Your task to perform on an android device: turn on translation in the chrome app Image 0: 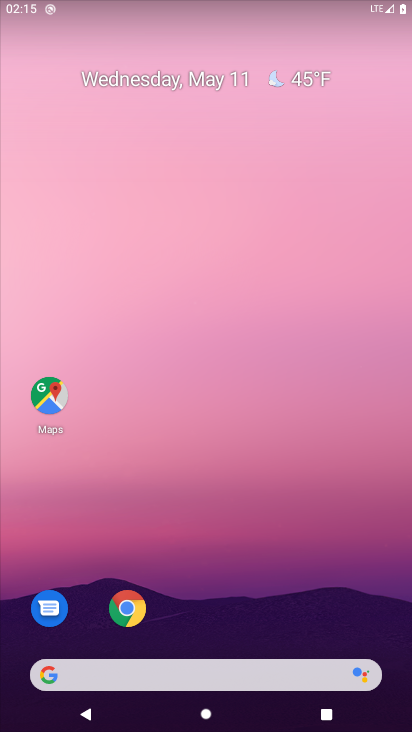
Step 0: click (133, 605)
Your task to perform on an android device: turn on translation in the chrome app Image 1: 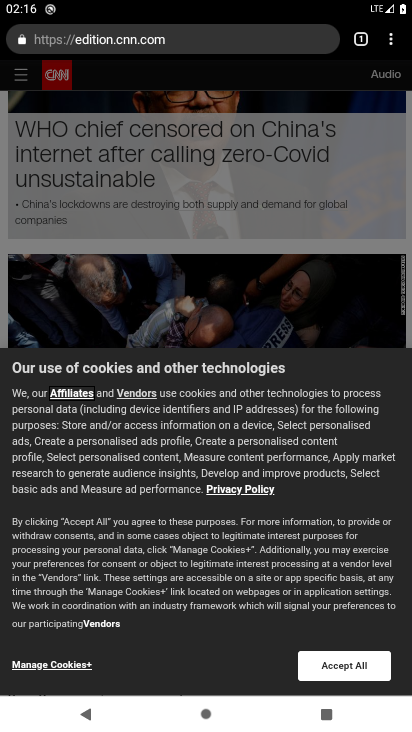
Step 1: click (392, 39)
Your task to perform on an android device: turn on translation in the chrome app Image 2: 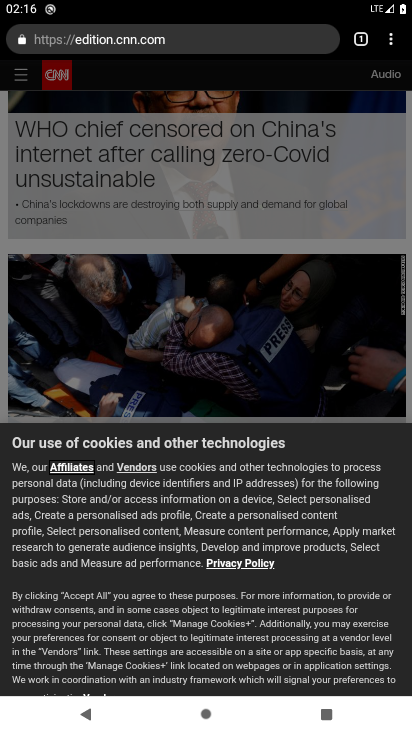
Step 2: click (392, 38)
Your task to perform on an android device: turn on translation in the chrome app Image 3: 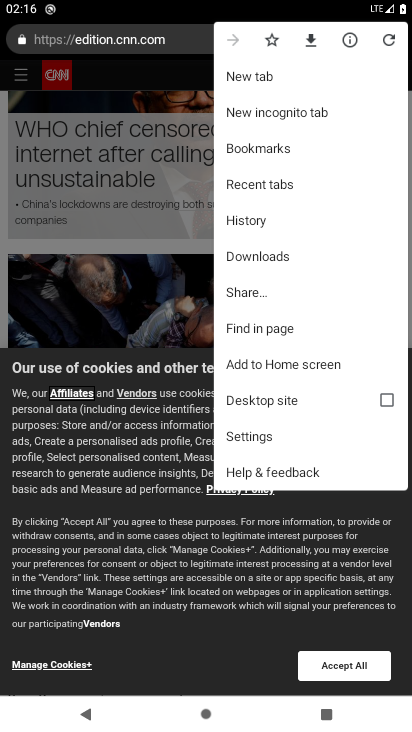
Step 3: click (272, 437)
Your task to perform on an android device: turn on translation in the chrome app Image 4: 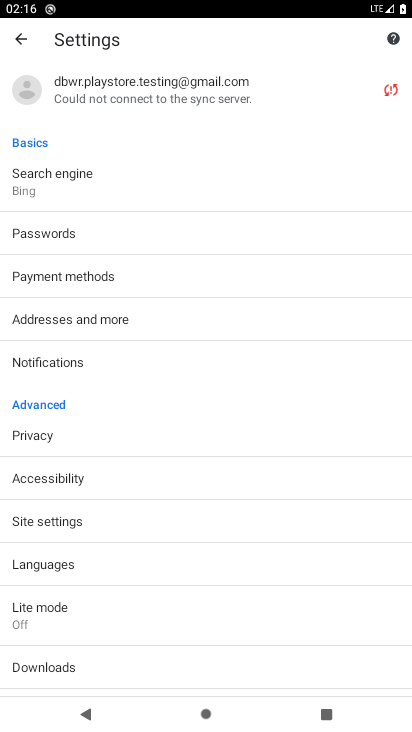
Step 4: click (79, 559)
Your task to perform on an android device: turn on translation in the chrome app Image 5: 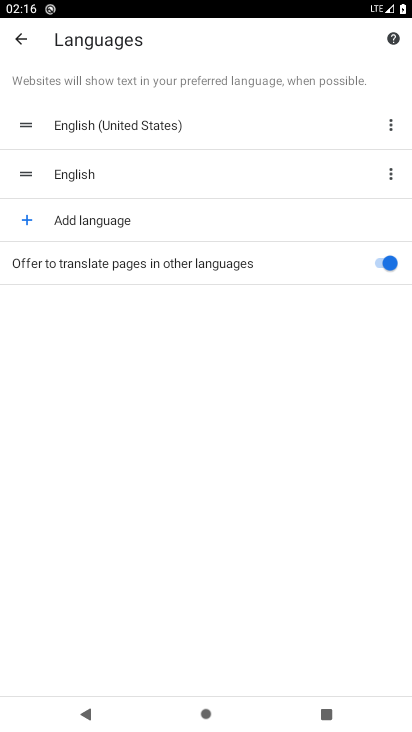
Step 5: task complete